Your task to perform on an android device: turn on location history Image 0: 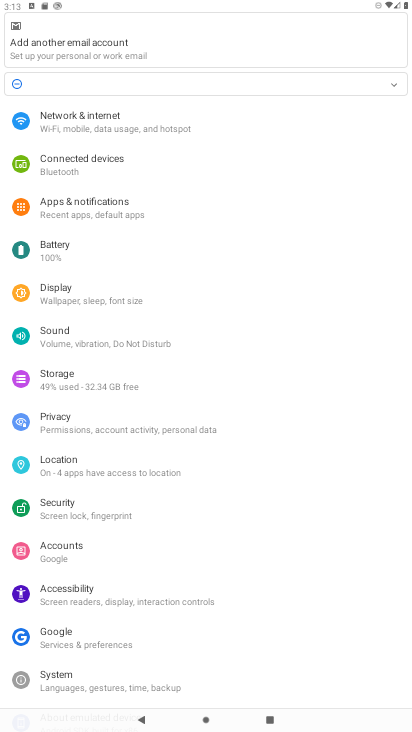
Step 0: press home button
Your task to perform on an android device: turn on location history Image 1: 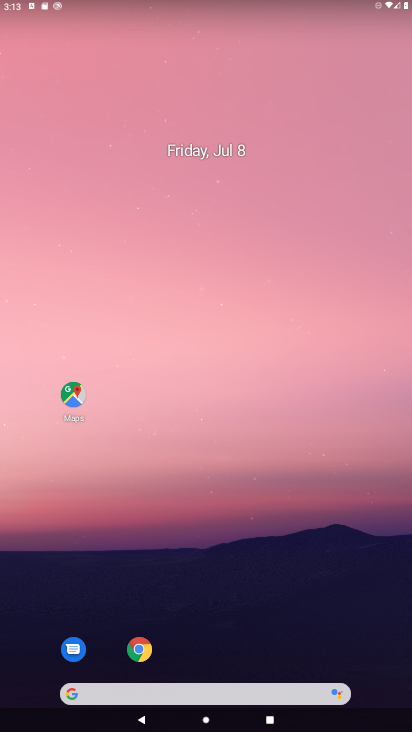
Step 1: click (73, 394)
Your task to perform on an android device: turn on location history Image 2: 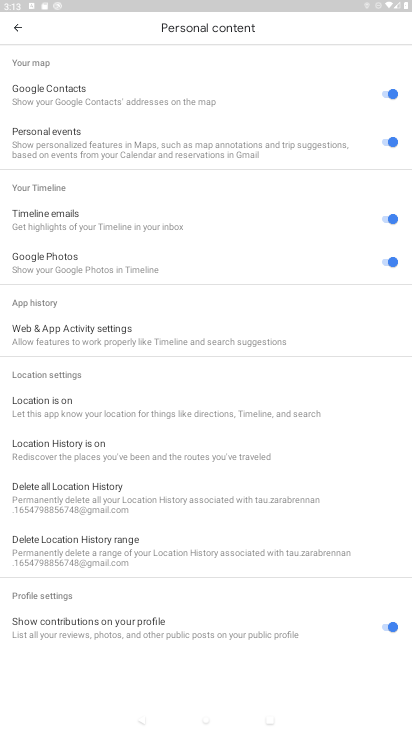
Step 2: task complete